Your task to perform on an android device: search for starred emails in the gmail app Image 0: 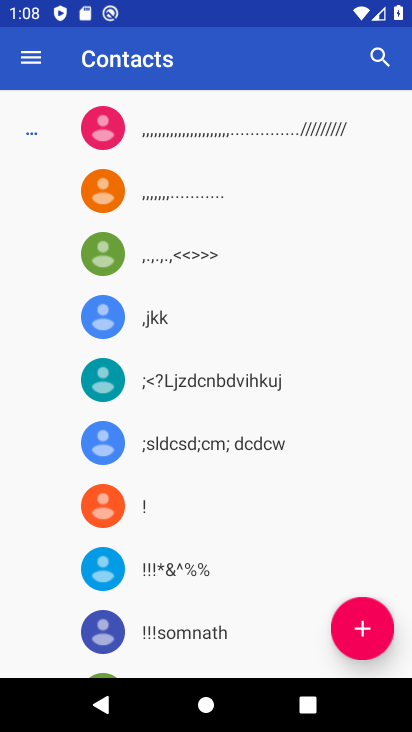
Step 0: press home button
Your task to perform on an android device: search for starred emails in the gmail app Image 1: 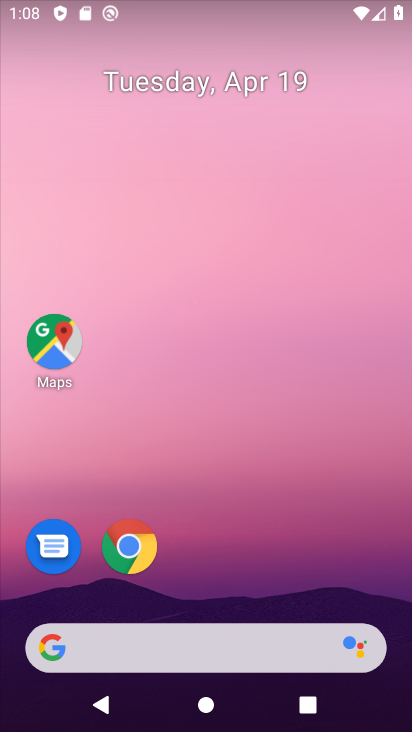
Step 1: drag from (175, 494) to (231, 71)
Your task to perform on an android device: search for starred emails in the gmail app Image 2: 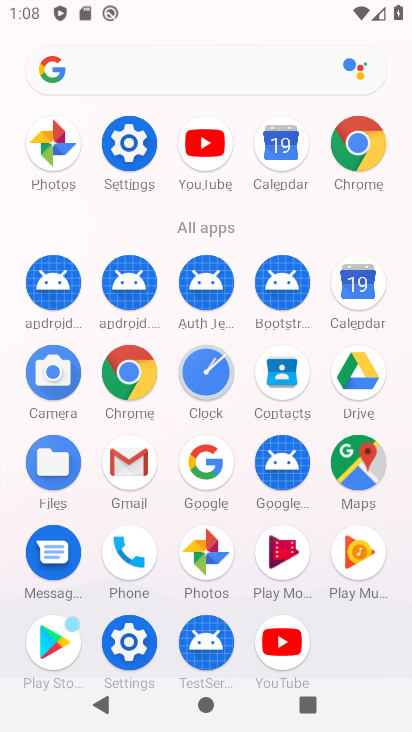
Step 2: click (126, 463)
Your task to perform on an android device: search for starred emails in the gmail app Image 3: 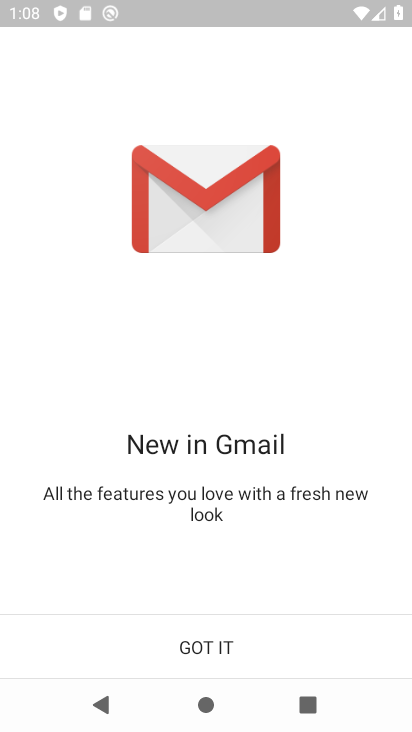
Step 3: click (204, 655)
Your task to perform on an android device: search for starred emails in the gmail app Image 4: 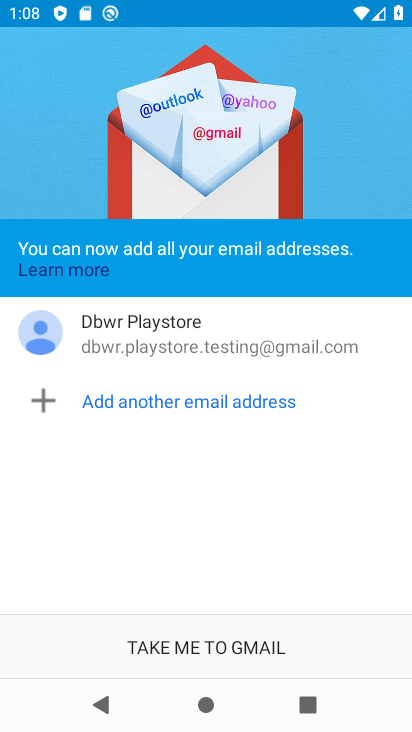
Step 4: click (209, 649)
Your task to perform on an android device: search for starred emails in the gmail app Image 5: 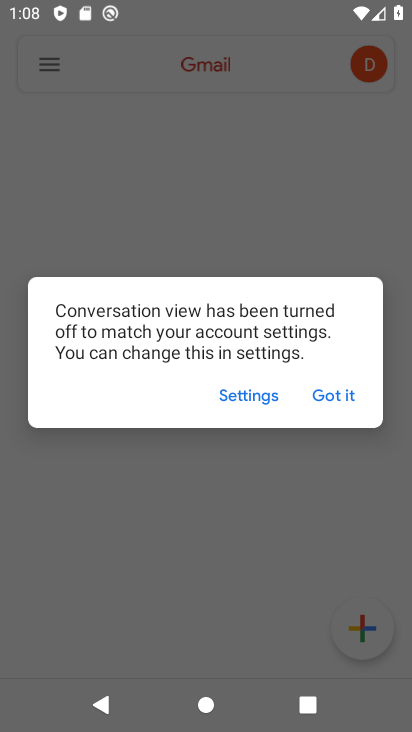
Step 5: click (345, 407)
Your task to perform on an android device: search for starred emails in the gmail app Image 6: 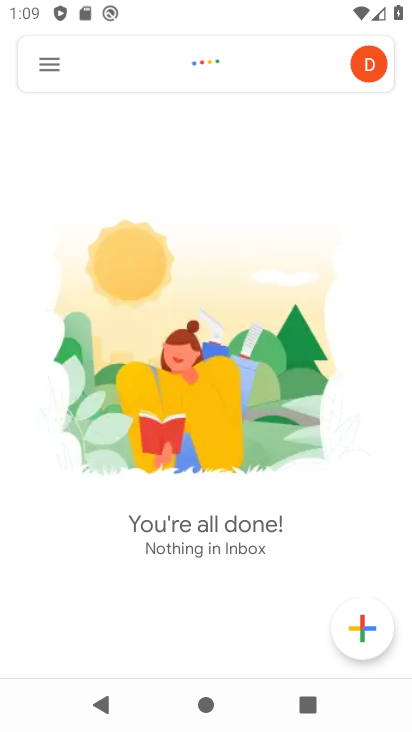
Step 6: click (50, 52)
Your task to perform on an android device: search for starred emails in the gmail app Image 7: 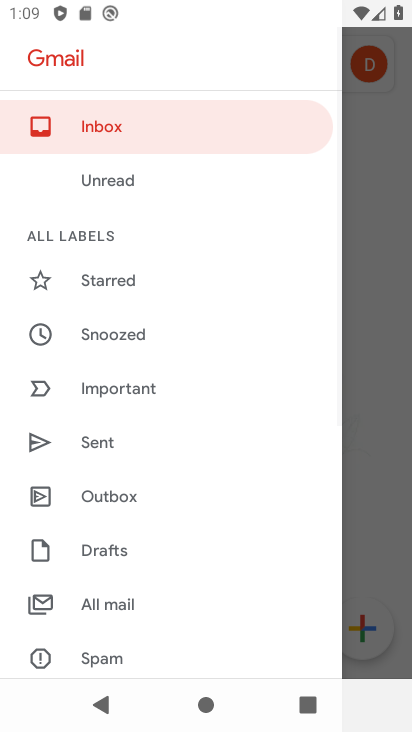
Step 7: click (119, 271)
Your task to perform on an android device: search for starred emails in the gmail app Image 8: 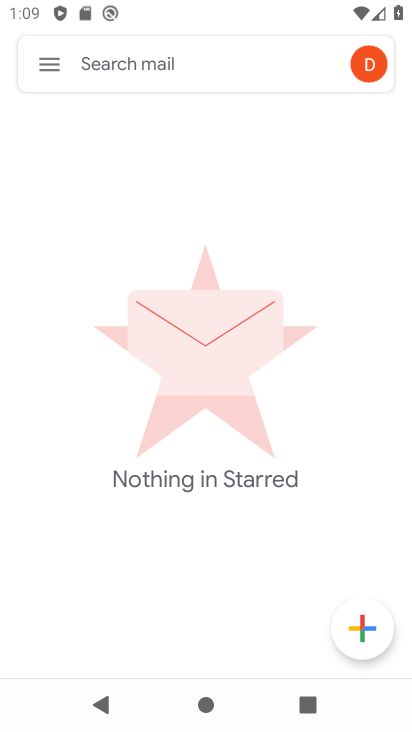
Step 8: task complete